Your task to perform on an android device: make emails show in primary in the gmail app Image 0: 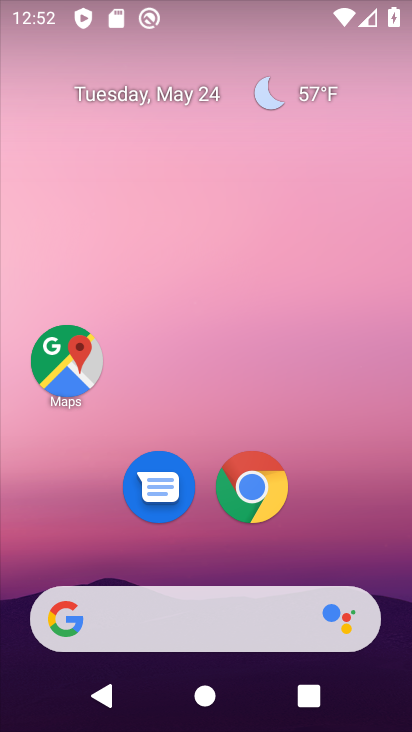
Step 0: click (217, 154)
Your task to perform on an android device: make emails show in primary in the gmail app Image 1: 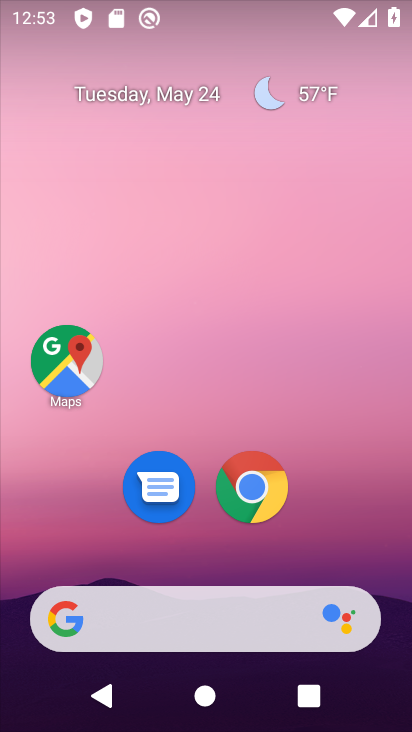
Step 1: drag from (221, 719) to (221, 111)
Your task to perform on an android device: make emails show in primary in the gmail app Image 2: 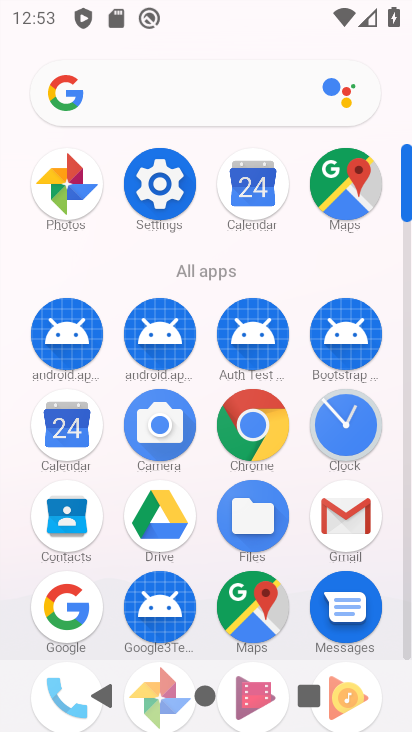
Step 2: click (346, 510)
Your task to perform on an android device: make emails show in primary in the gmail app Image 3: 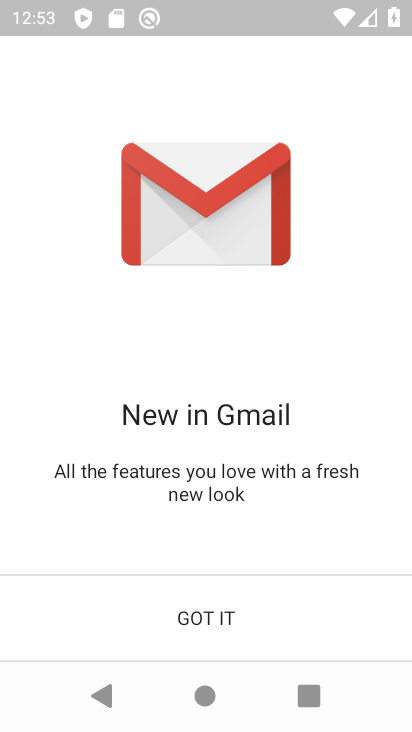
Step 3: click (210, 615)
Your task to perform on an android device: make emails show in primary in the gmail app Image 4: 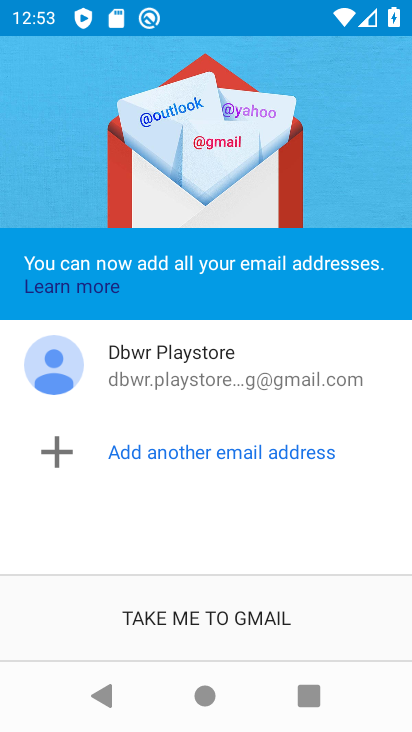
Step 4: click (210, 615)
Your task to perform on an android device: make emails show in primary in the gmail app Image 5: 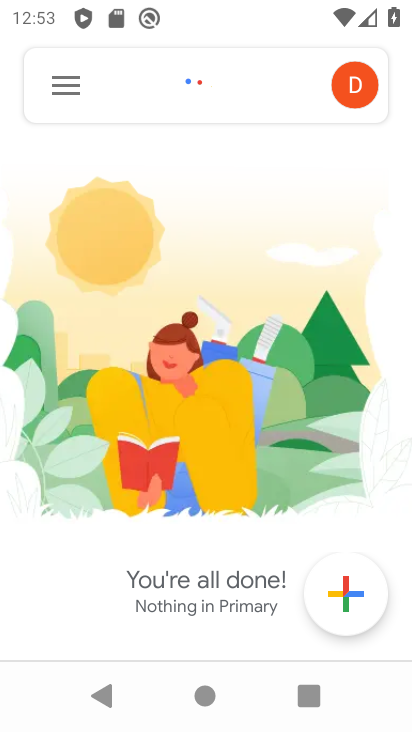
Step 5: click (53, 86)
Your task to perform on an android device: make emails show in primary in the gmail app Image 6: 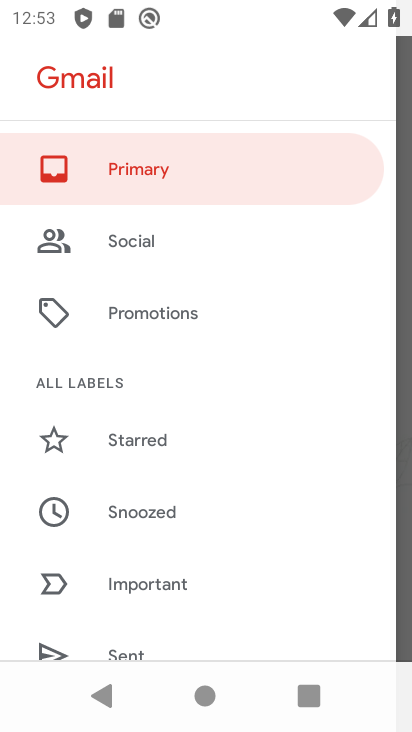
Step 6: drag from (166, 641) to (173, 192)
Your task to perform on an android device: make emails show in primary in the gmail app Image 7: 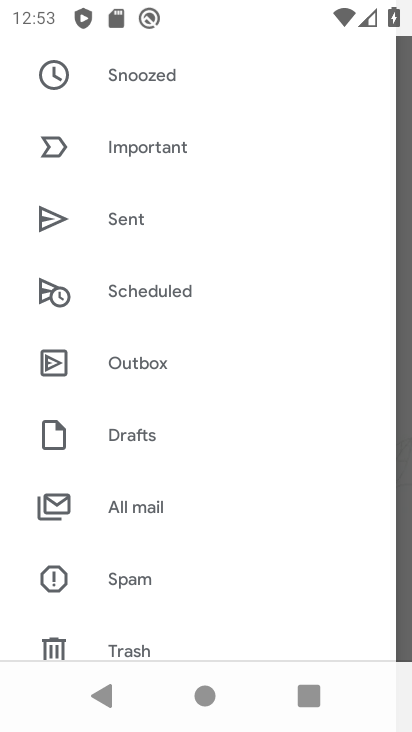
Step 7: drag from (171, 631) to (176, 261)
Your task to perform on an android device: make emails show in primary in the gmail app Image 8: 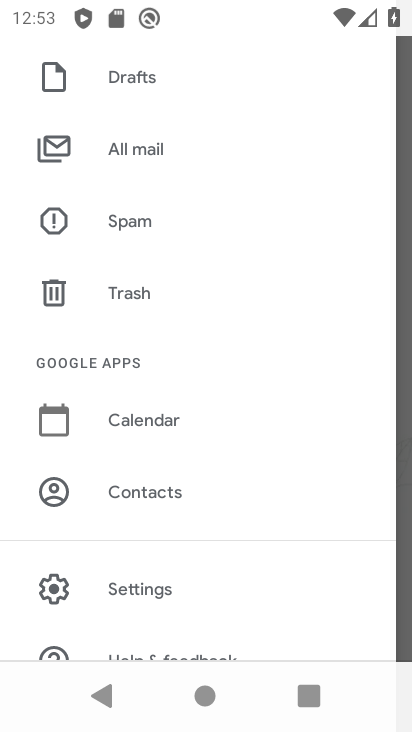
Step 8: click (156, 582)
Your task to perform on an android device: make emails show in primary in the gmail app Image 9: 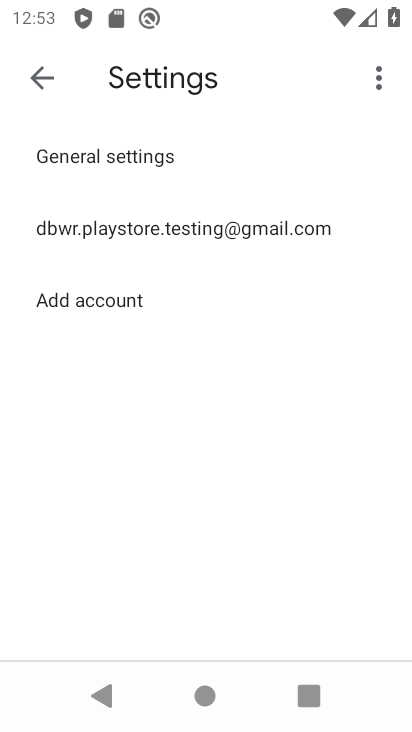
Step 9: click (147, 233)
Your task to perform on an android device: make emails show in primary in the gmail app Image 10: 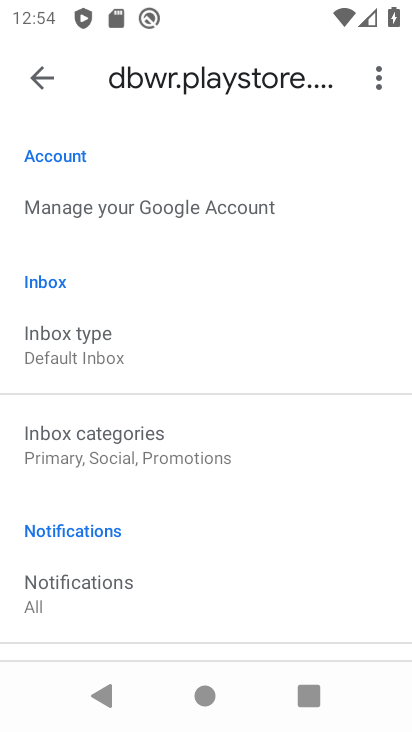
Step 10: click (121, 450)
Your task to perform on an android device: make emails show in primary in the gmail app Image 11: 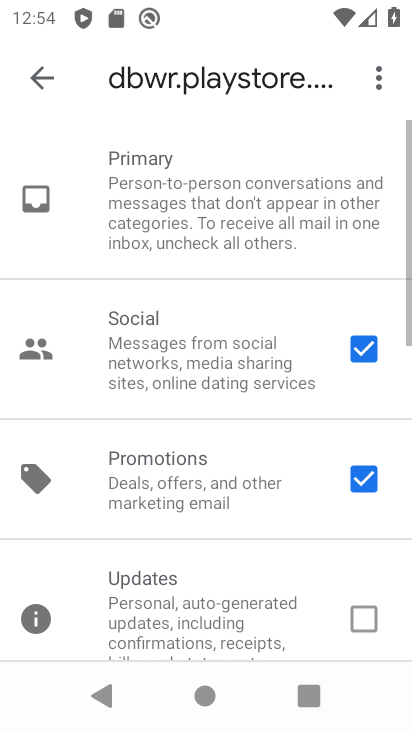
Step 11: click (367, 475)
Your task to perform on an android device: make emails show in primary in the gmail app Image 12: 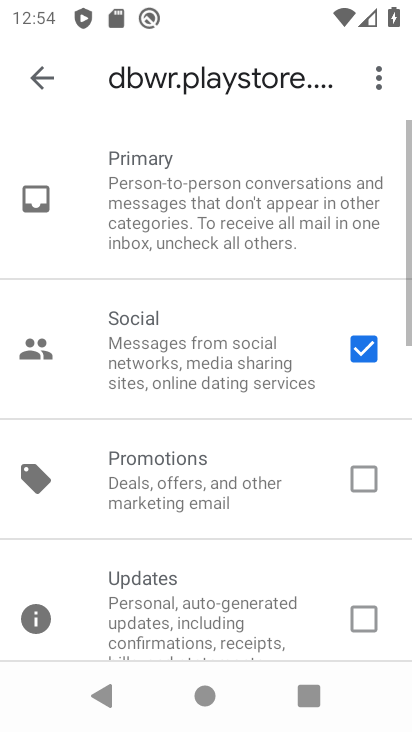
Step 12: click (364, 347)
Your task to perform on an android device: make emails show in primary in the gmail app Image 13: 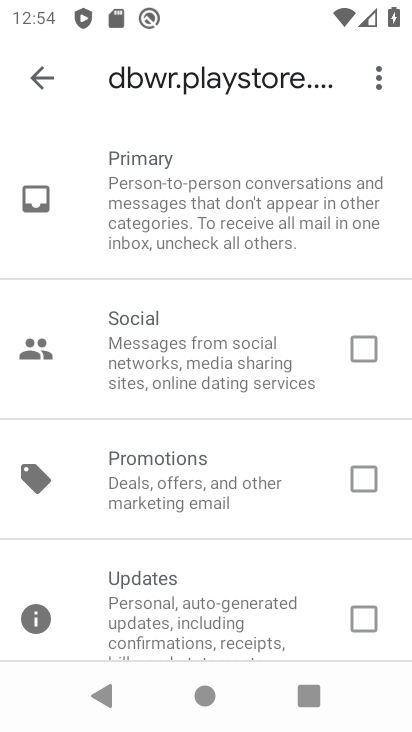
Step 13: click (42, 73)
Your task to perform on an android device: make emails show in primary in the gmail app Image 14: 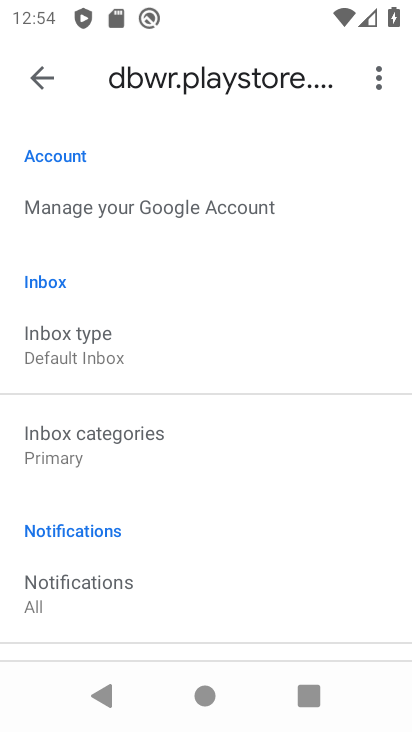
Step 14: task complete